Your task to perform on an android device: read, delete, or share a saved page in the chrome app Image 0: 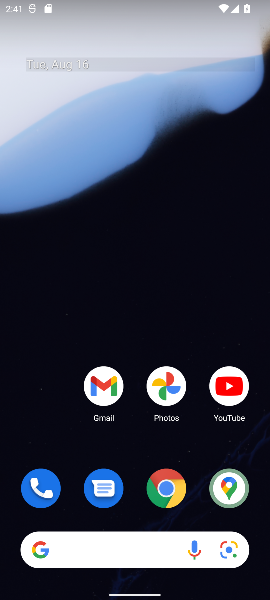
Step 0: click (179, 483)
Your task to perform on an android device: read, delete, or share a saved page in the chrome app Image 1: 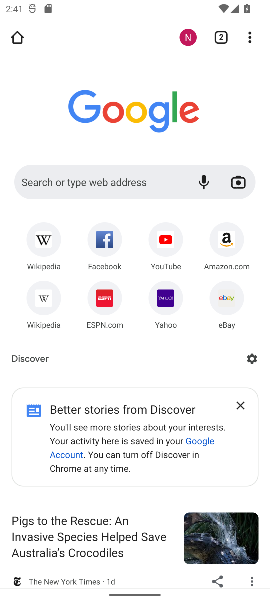
Step 1: task complete